Your task to perform on an android device: toggle airplane mode Image 0: 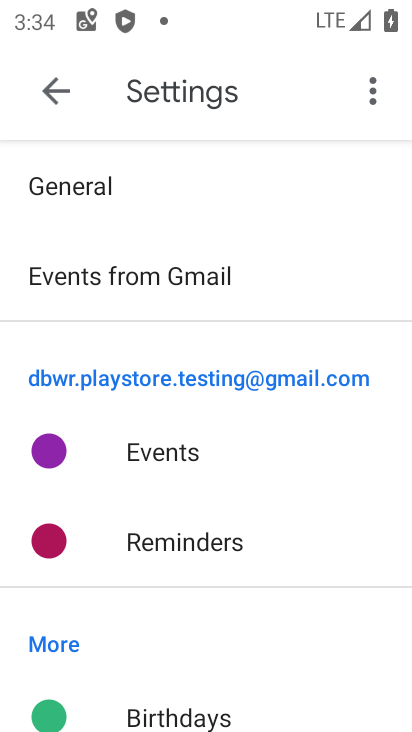
Step 0: press back button
Your task to perform on an android device: toggle airplane mode Image 1: 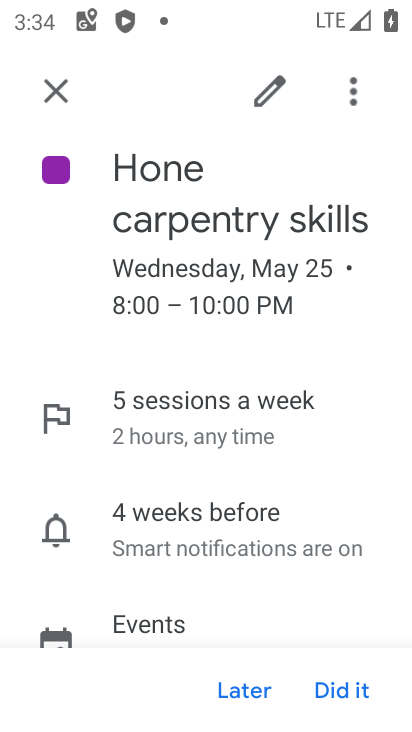
Step 1: press back button
Your task to perform on an android device: toggle airplane mode Image 2: 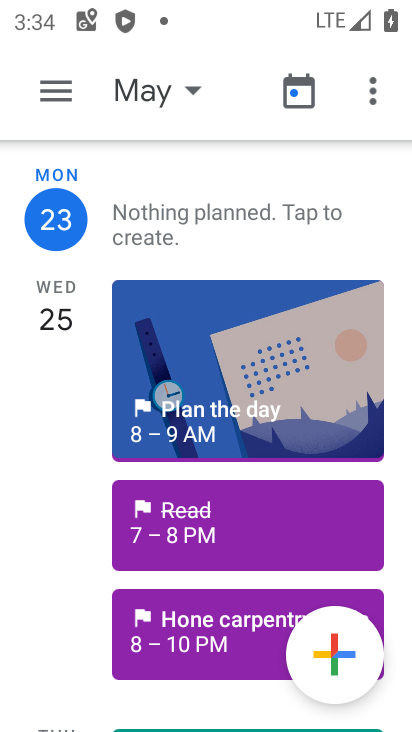
Step 2: drag from (333, 11) to (262, 521)
Your task to perform on an android device: toggle airplane mode Image 3: 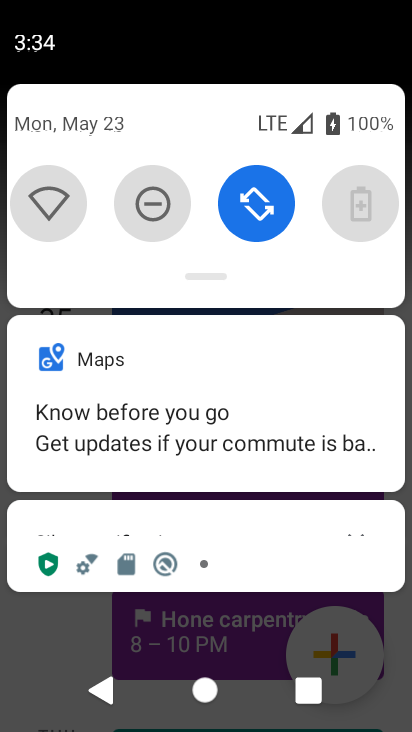
Step 3: drag from (199, 268) to (187, 695)
Your task to perform on an android device: toggle airplane mode Image 4: 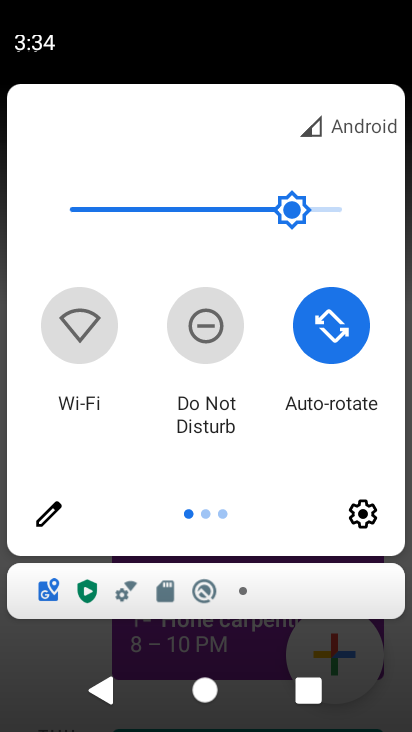
Step 4: drag from (351, 318) to (43, 319)
Your task to perform on an android device: toggle airplane mode Image 5: 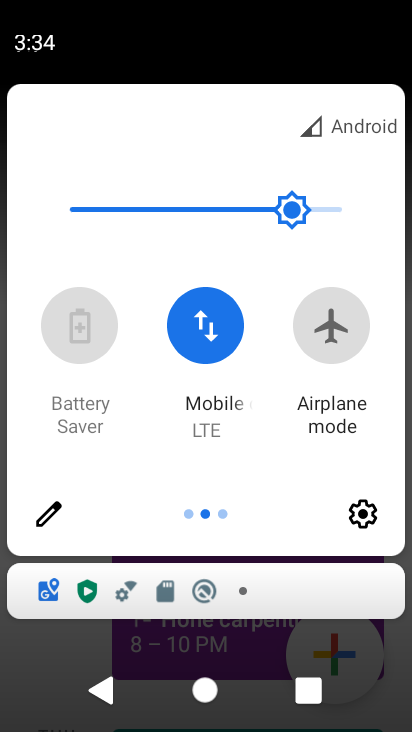
Step 5: click (338, 331)
Your task to perform on an android device: toggle airplane mode Image 6: 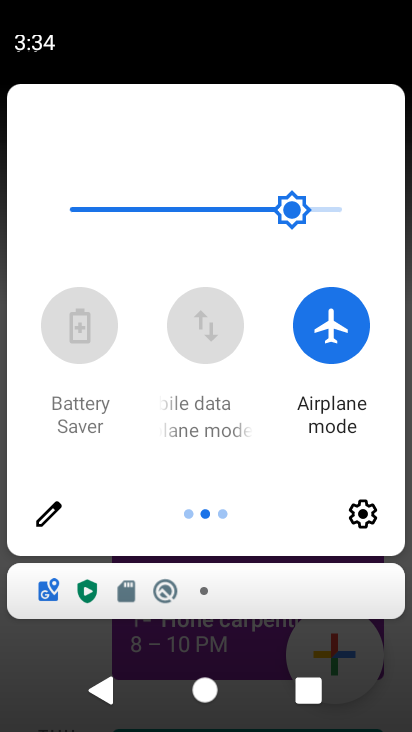
Step 6: task complete